Your task to perform on an android device: toggle airplane mode Image 0: 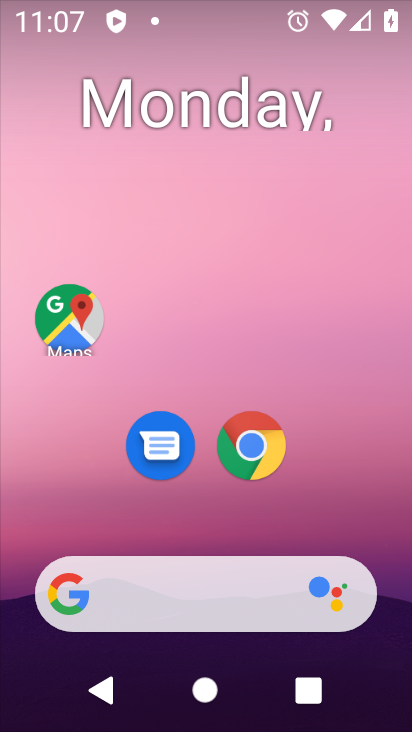
Step 0: drag from (343, 530) to (186, 209)
Your task to perform on an android device: toggle airplane mode Image 1: 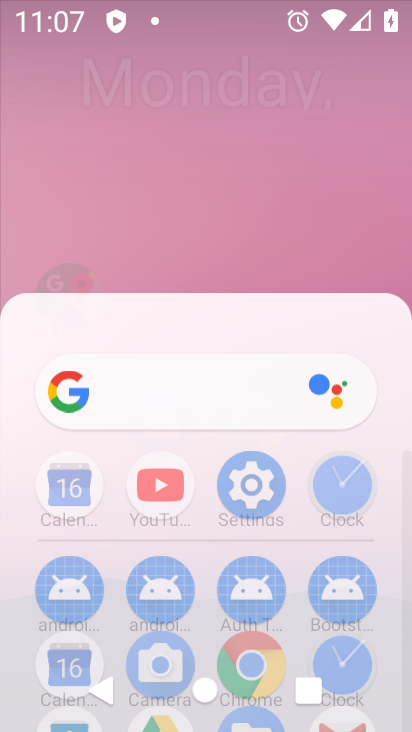
Step 1: click (91, 136)
Your task to perform on an android device: toggle airplane mode Image 2: 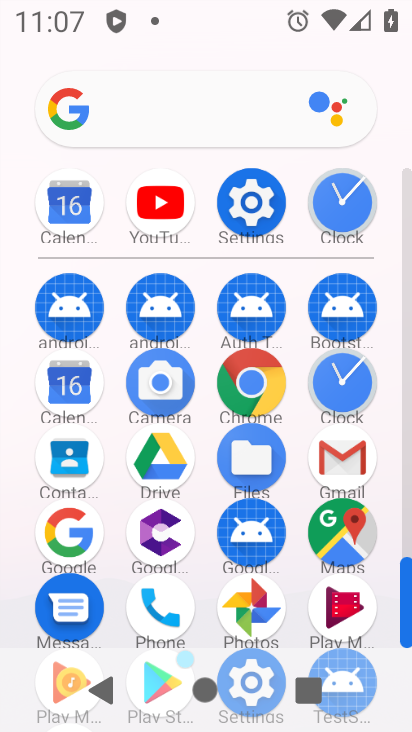
Step 2: click (251, 187)
Your task to perform on an android device: toggle airplane mode Image 3: 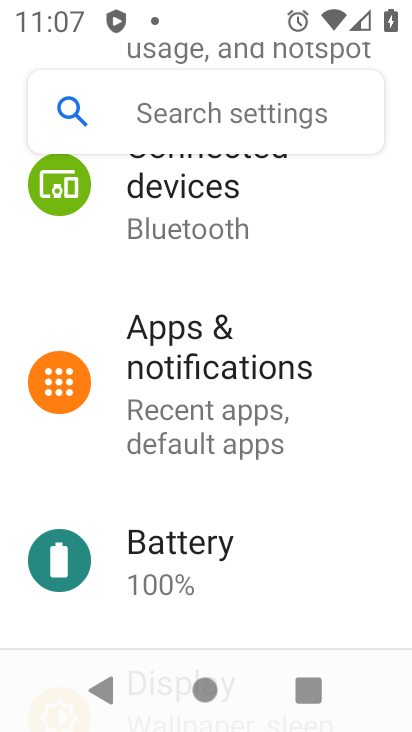
Step 3: drag from (252, 195) to (254, 468)
Your task to perform on an android device: toggle airplane mode Image 4: 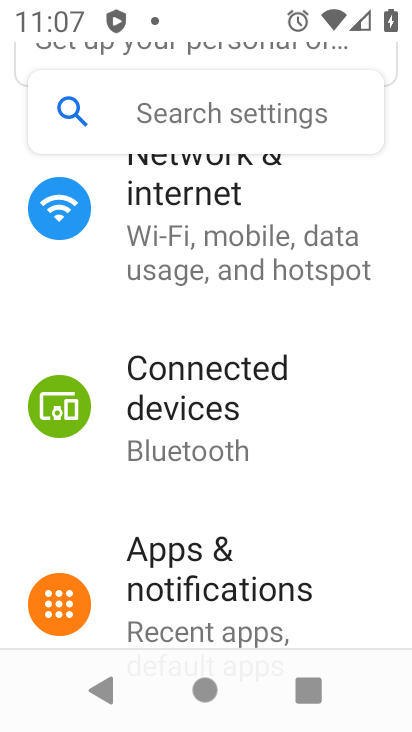
Step 4: click (205, 249)
Your task to perform on an android device: toggle airplane mode Image 5: 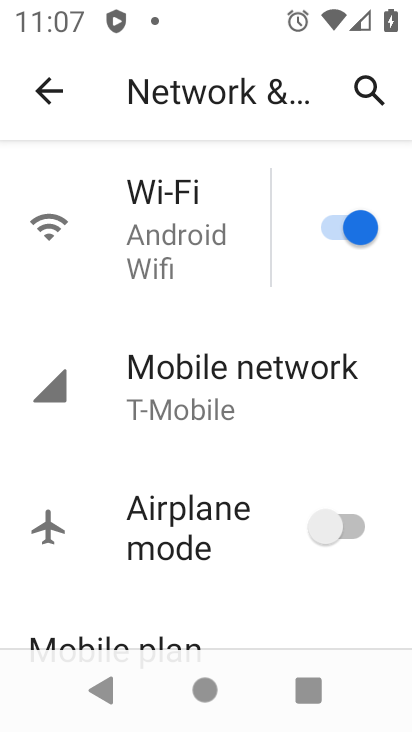
Step 5: click (312, 528)
Your task to perform on an android device: toggle airplane mode Image 6: 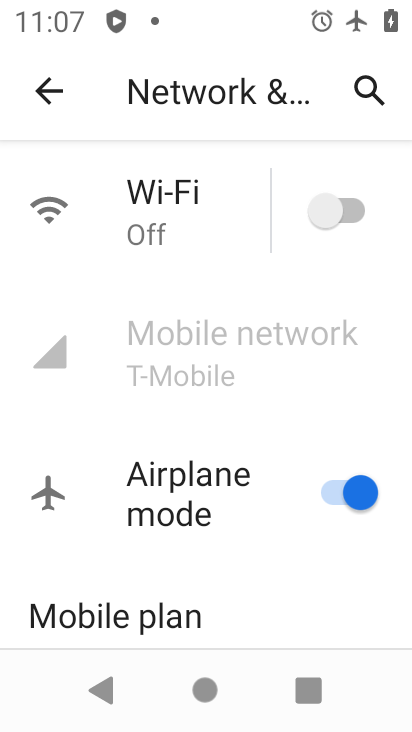
Step 6: task complete